Your task to perform on an android device: Go to Maps Image 0: 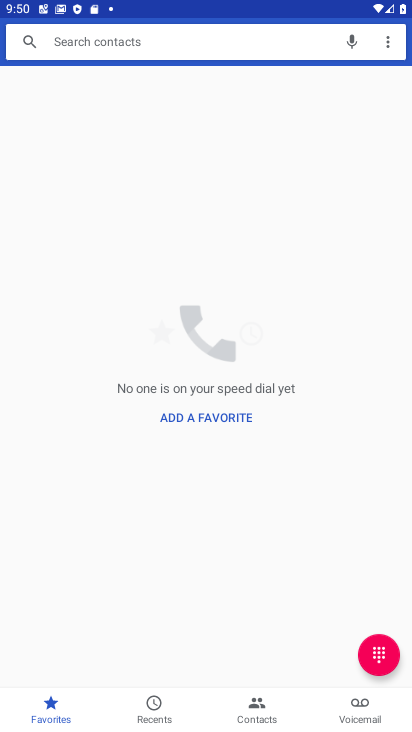
Step 0: press home button
Your task to perform on an android device: Go to Maps Image 1: 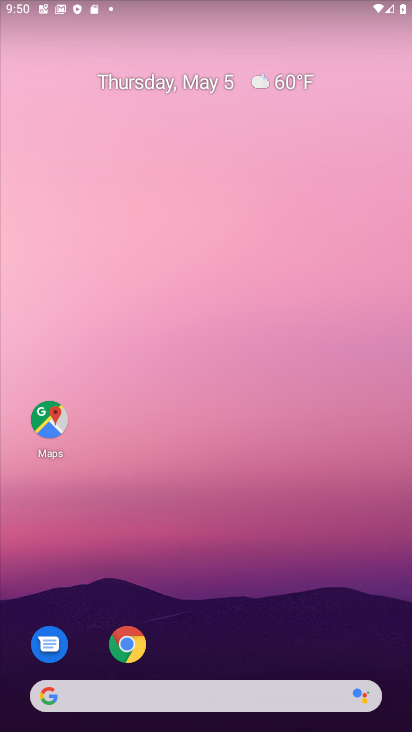
Step 1: click (50, 421)
Your task to perform on an android device: Go to Maps Image 2: 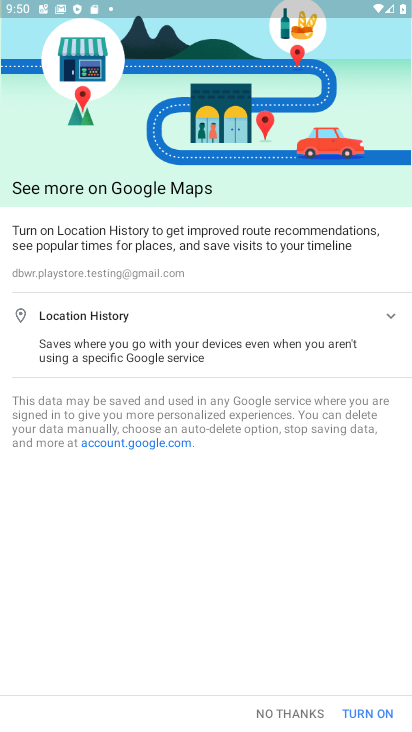
Step 2: task complete